Your task to perform on an android device: all mails in gmail Image 0: 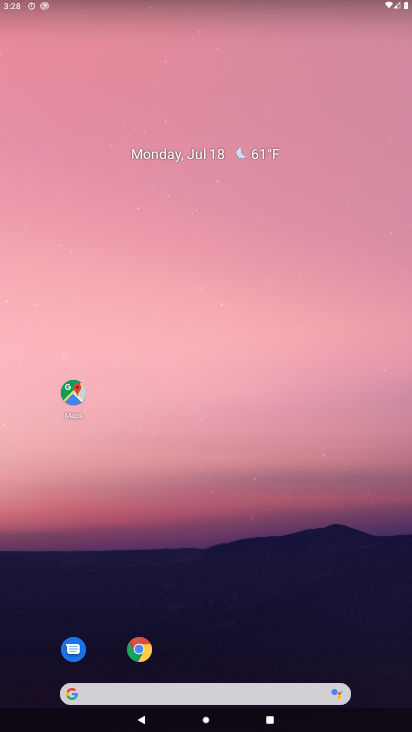
Step 0: drag from (38, 695) to (409, 14)
Your task to perform on an android device: all mails in gmail Image 1: 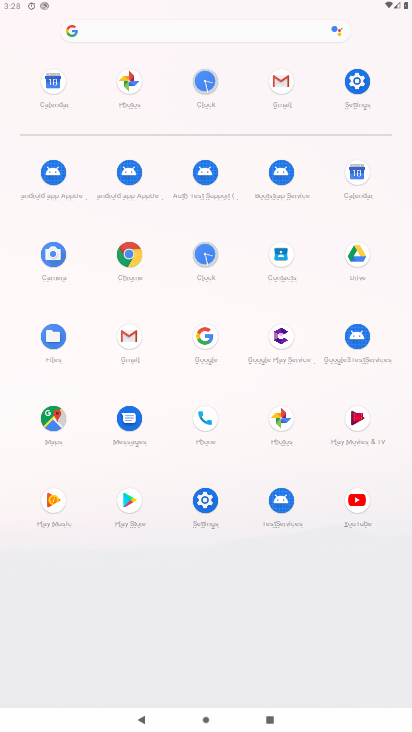
Step 1: click (136, 335)
Your task to perform on an android device: all mails in gmail Image 2: 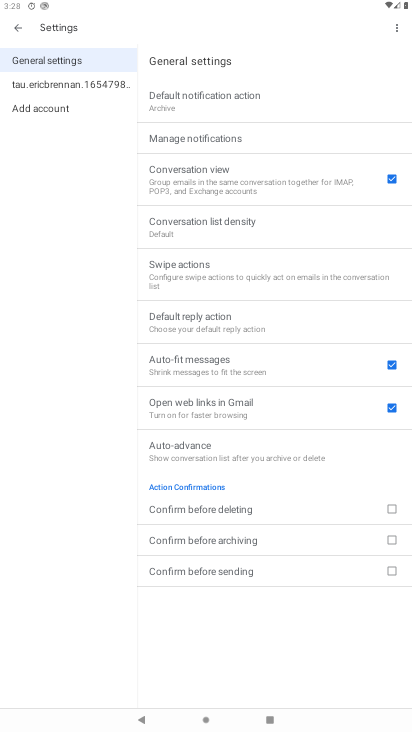
Step 2: click (21, 26)
Your task to perform on an android device: all mails in gmail Image 3: 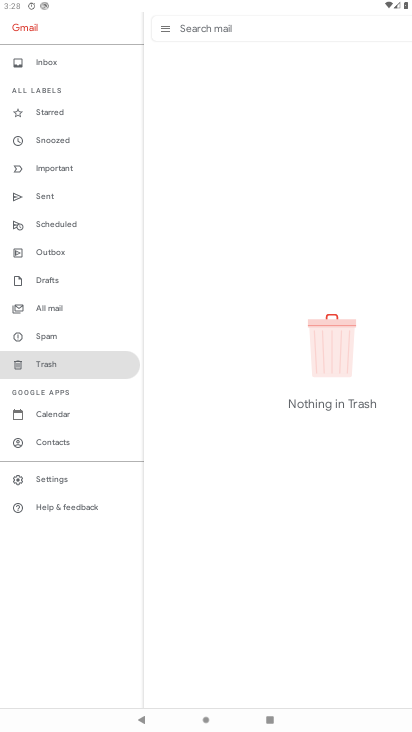
Step 3: click (54, 301)
Your task to perform on an android device: all mails in gmail Image 4: 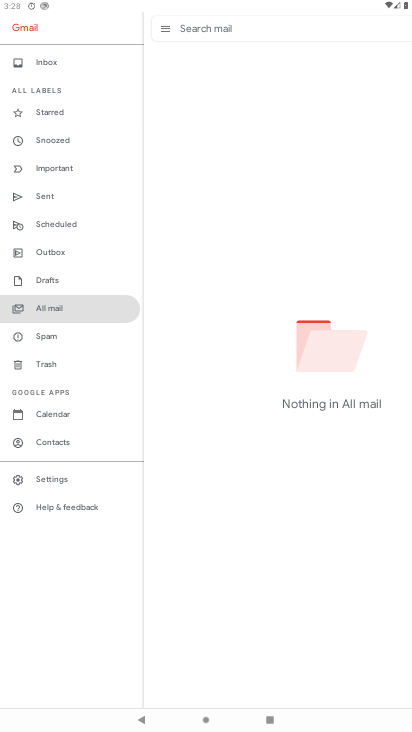
Step 4: task complete